Your task to perform on an android device: change the clock style Image 0: 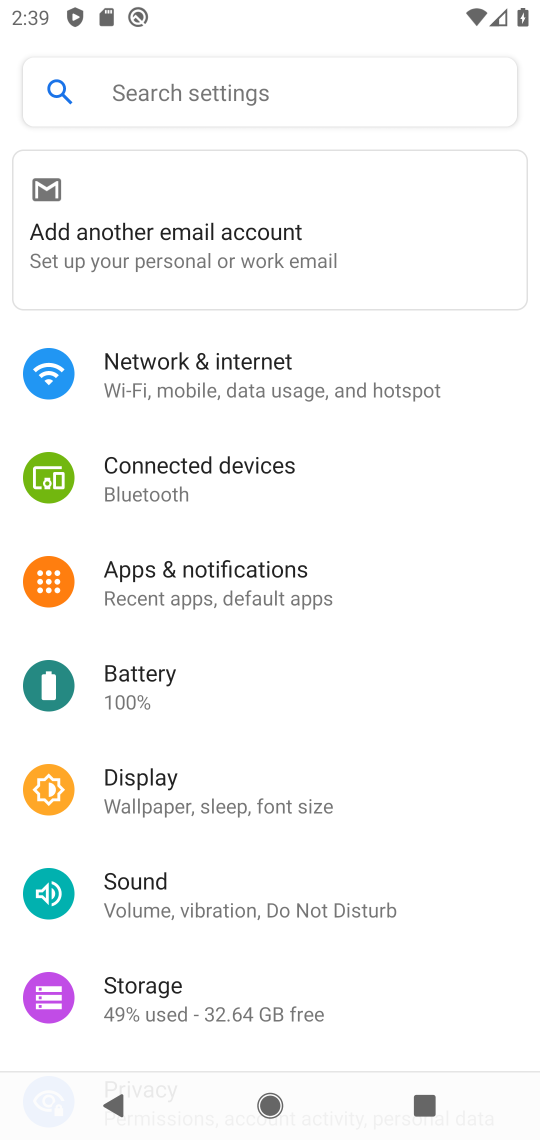
Step 0: press home button
Your task to perform on an android device: change the clock style Image 1: 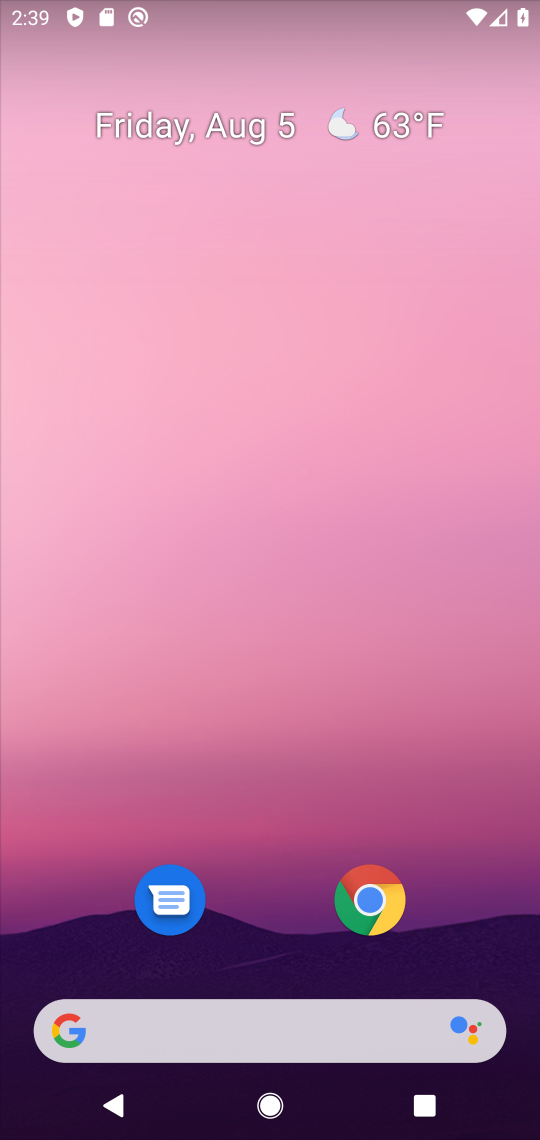
Step 1: drag from (287, 968) to (233, 113)
Your task to perform on an android device: change the clock style Image 2: 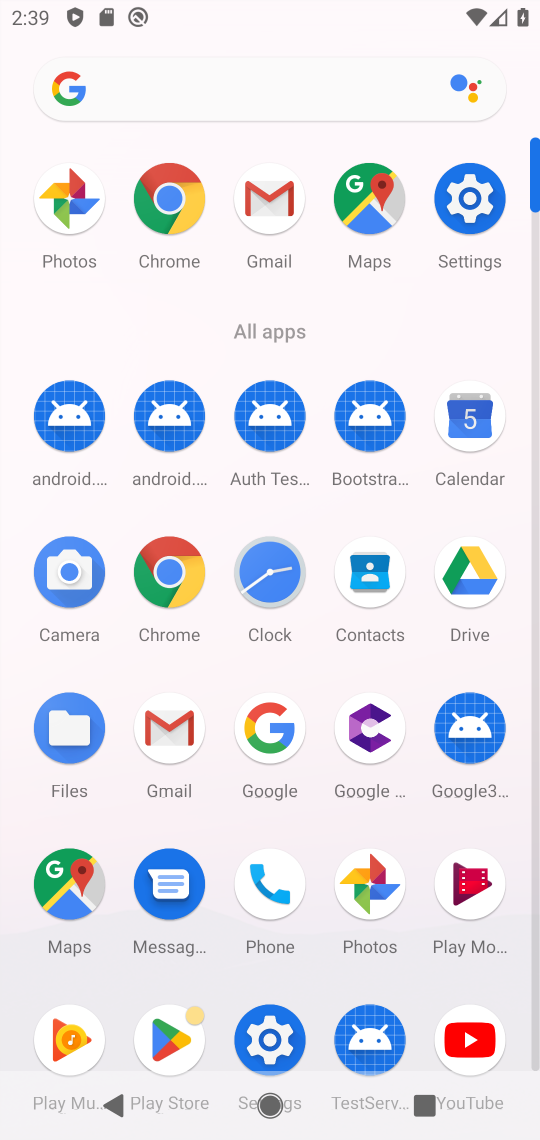
Step 2: click (285, 553)
Your task to perform on an android device: change the clock style Image 3: 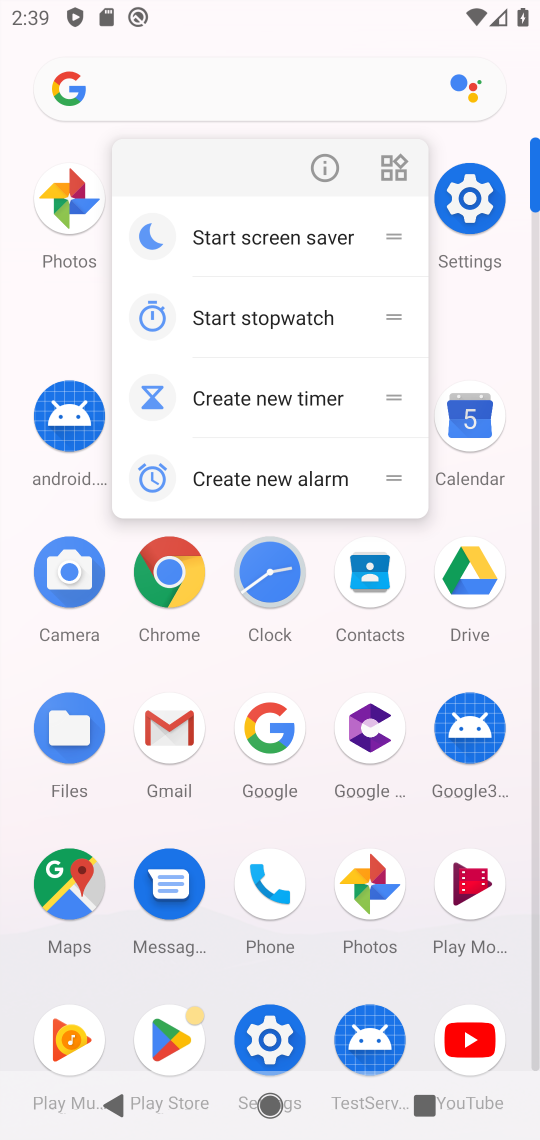
Step 3: click (291, 575)
Your task to perform on an android device: change the clock style Image 4: 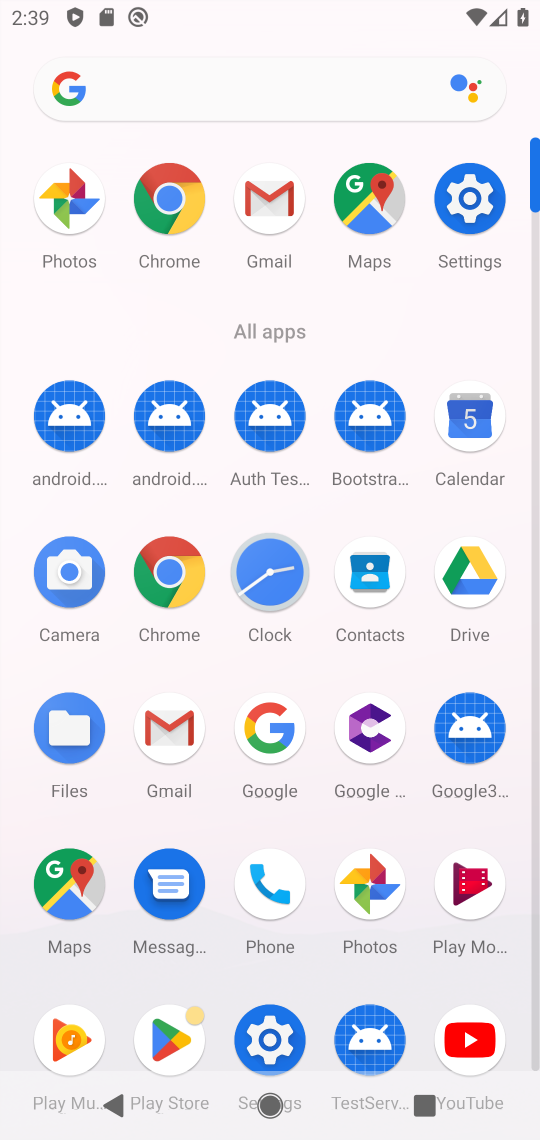
Step 4: task complete